Your task to perform on an android device: check data usage Image 0: 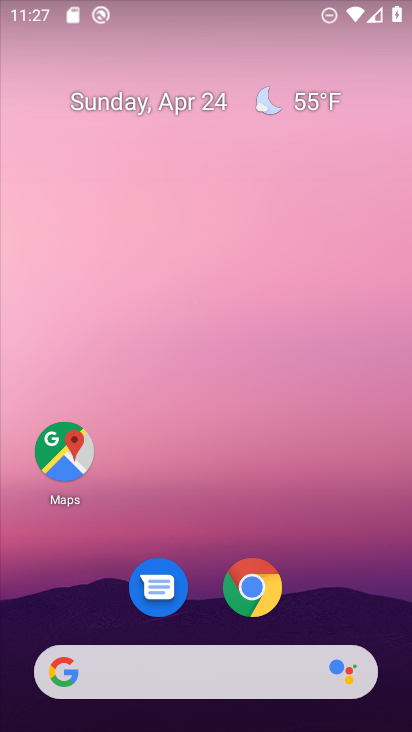
Step 0: drag from (318, 555) to (351, 141)
Your task to perform on an android device: check data usage Image 1: 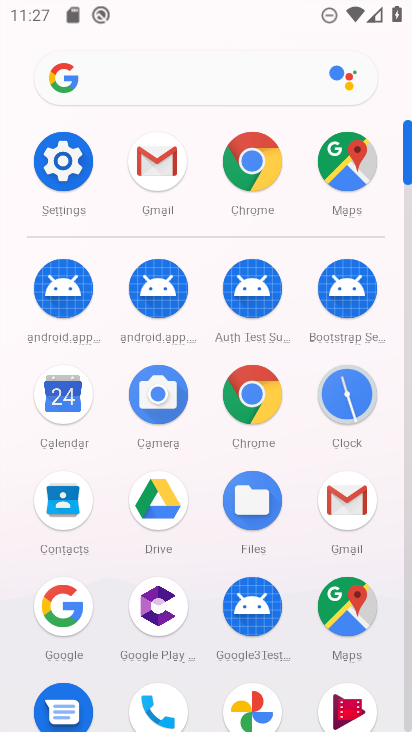
Step 1: click (55, 151)
Your task to perform on an android device: check data usage Image 2: 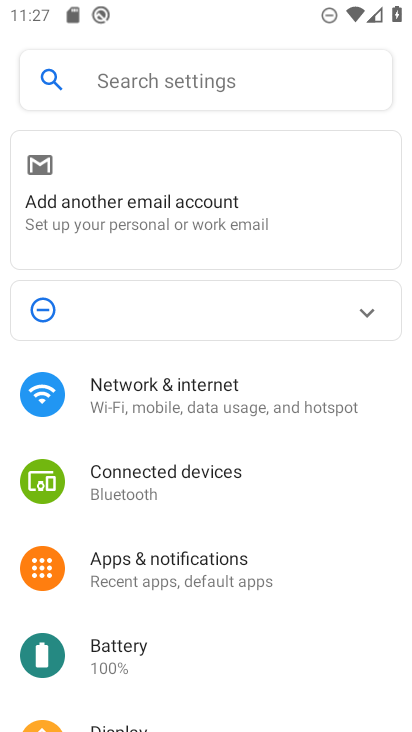
Step 2: click (250, 403)
Your task to perform on an android device: check data usage Image 3: 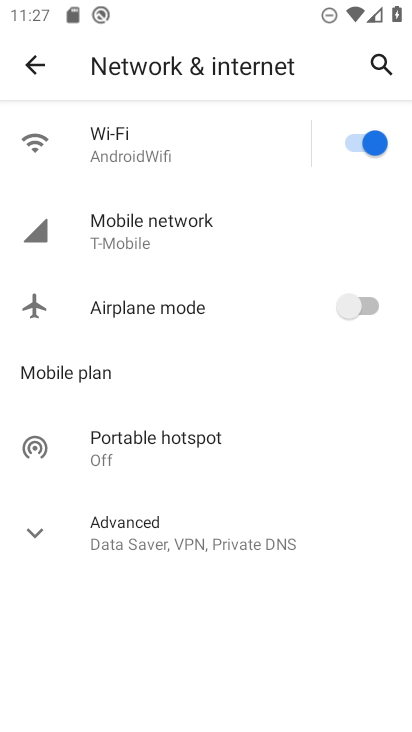
Step 3: click (162, 233)
Your task to perform on an android device: check data usage Image 4: 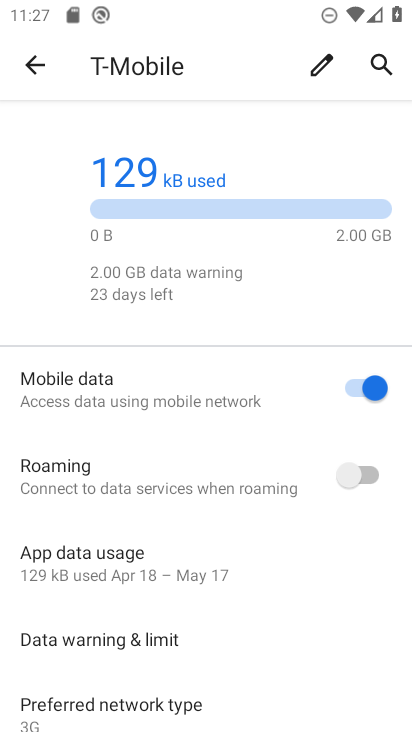
Step 4: task complete